Your task to perform on an android device: turn on airplane mode Image 0: 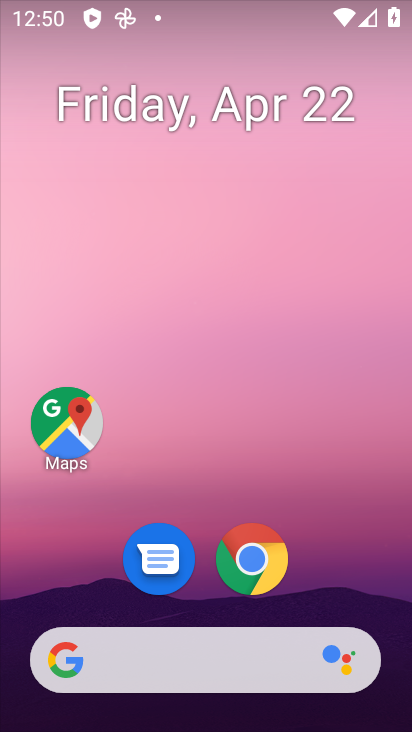
Step 0: drag from (358, 570) to (361, 209)
Your task to perform on an android device: turn on airplane mode Image 1: 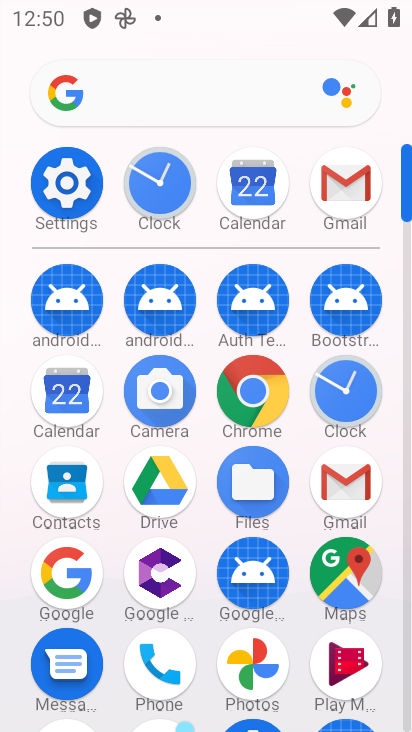
Step 1: click (62, 190)
Your task to perform on an android device: turn on airplane mode Image 2: 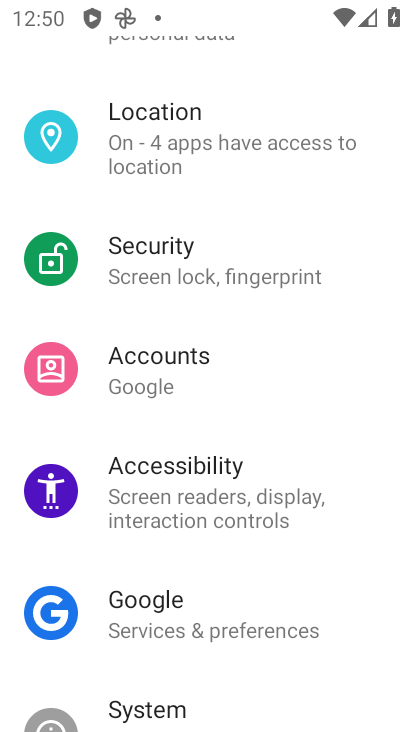
Step 2: click (370, 390)
Your task to perform on an android device: turn on airplane mode Image 3: 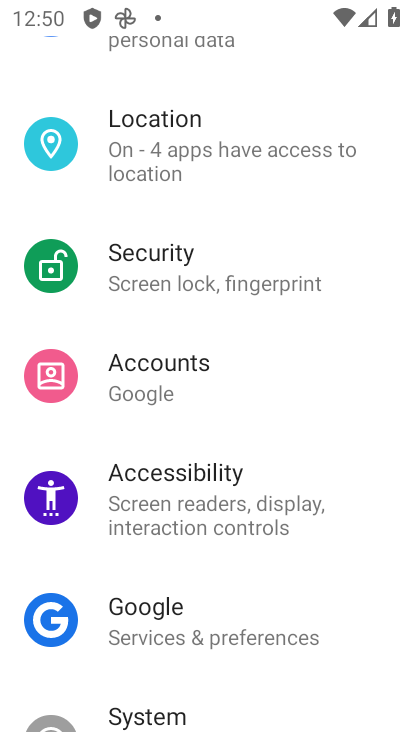
Step 3: drag from (364, 296) to (370, 417)
Your task to perform on an android device: turn on airplane mode Image 4: 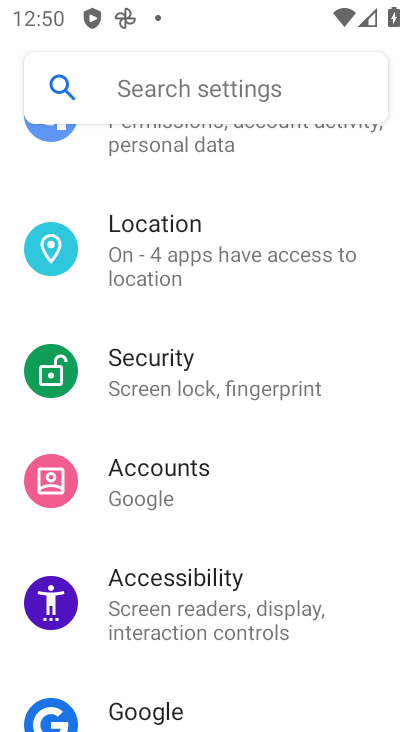
Step 4: drag from (383, 325) to (384, 409)
Your task to perform on an android device: turn on airplane mode Image 5: 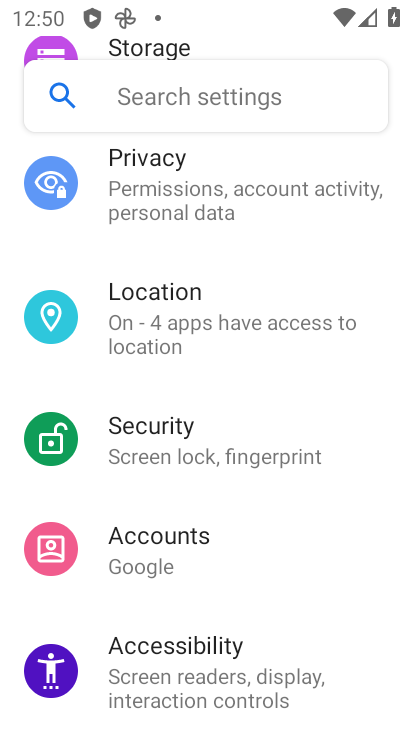
Step 5: drag from (383, 273) to (373, 510)
Your task to perform on an android device: turn on airplane mode Image 6: 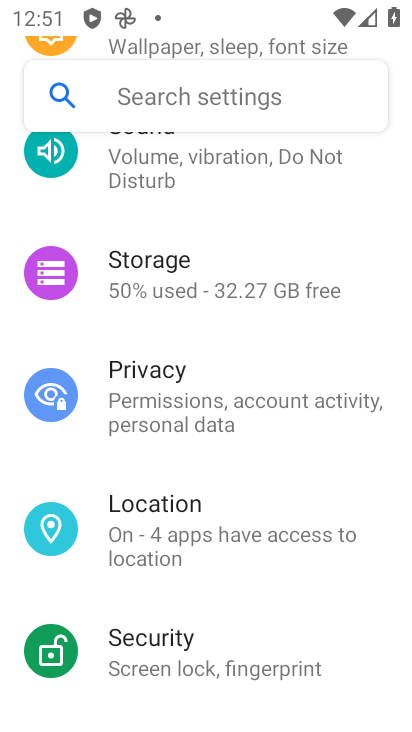
Step 6: drag from (366, 250) to (350, 486)
Your task to perform on an android device: turn on airplane mode Image 7: 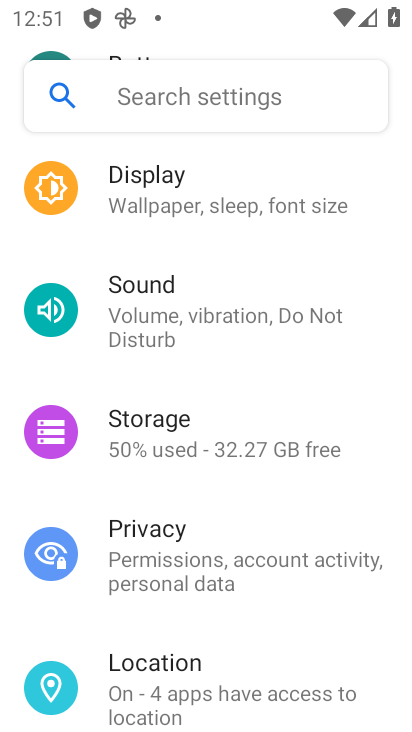
Step 7: drag from (365, 257) to (356, 445)
Your task to perform on an android device: turn on airplane mode Image 8: 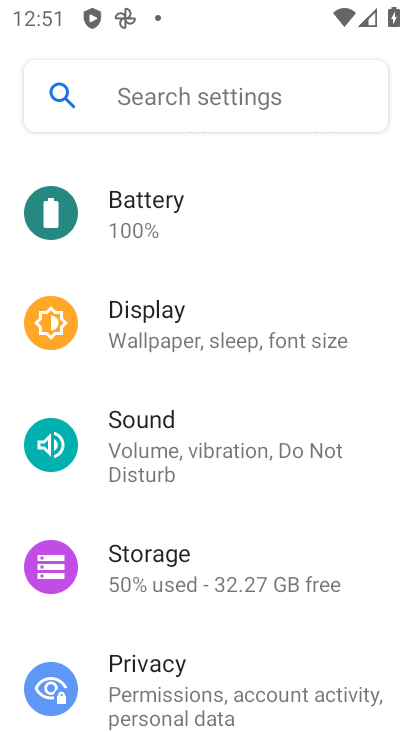
Step 8: drag from (365, 257) to (367, 433)
Your task to perform on an android device: turn on airplane mode Image 9: 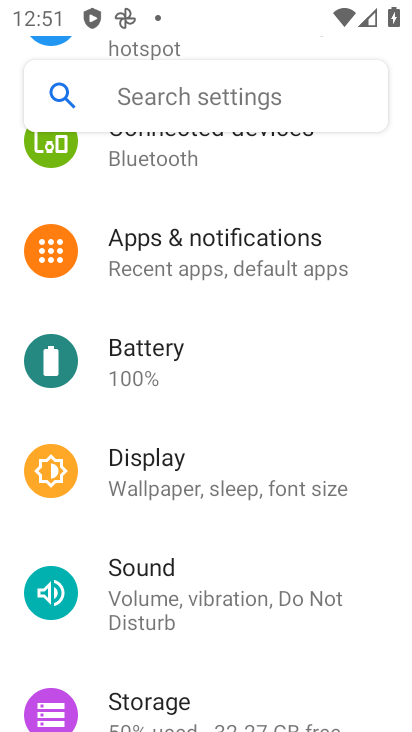
Step 9: drag from (374, 214) to (370, 399)
Your task to perform on an android device: turn on airplane mode Image 10: 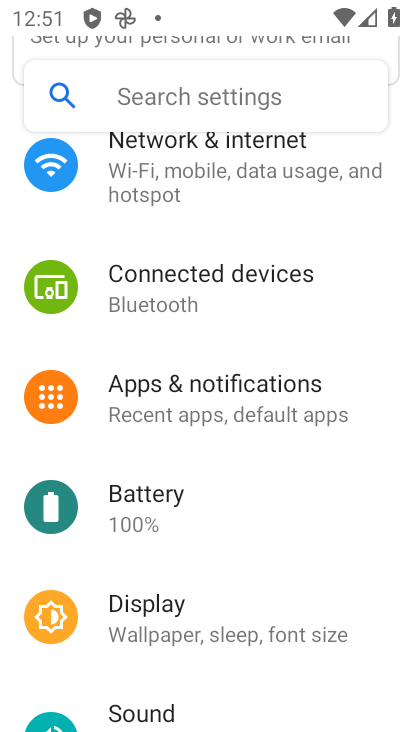
Step 10: drag from (350, 242) to (368, 376)
Your task to perform on an android device: turn on airplane mode Image 11: 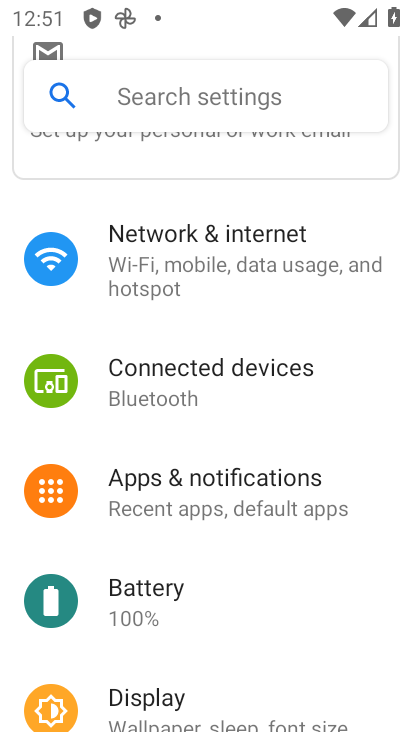
Step 11: click (242, 248)
Your task to perform on an android device: turn on airplane mode Image 12: 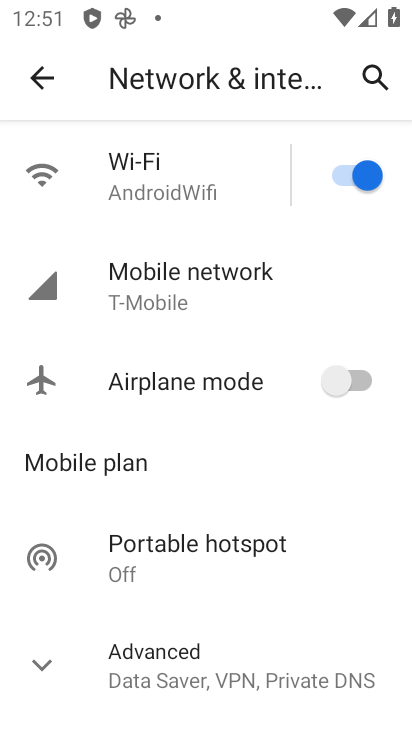
Step 12: click (347, 377)
Your task to perform on an android device: turn on airplane mode Image 13: 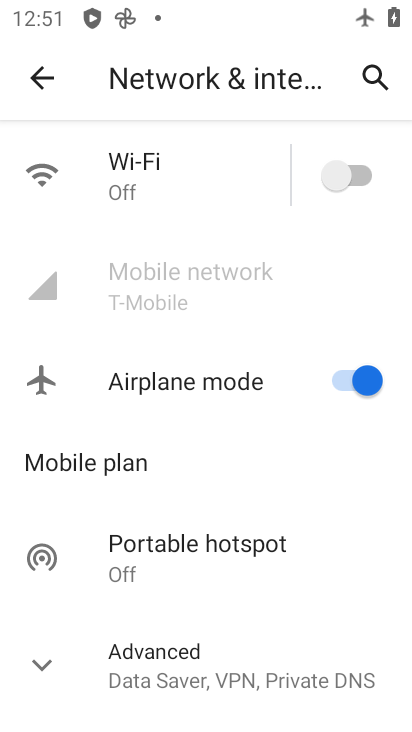
Step 13: task complete